Your task to perform on an android device: Go to notification settings Image 0: 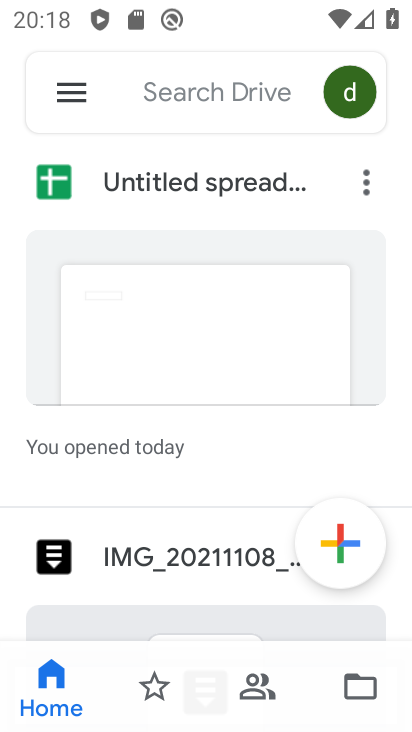
Step 0: press home button
Your task to perform on an android device: Go to notification settings Image 1: 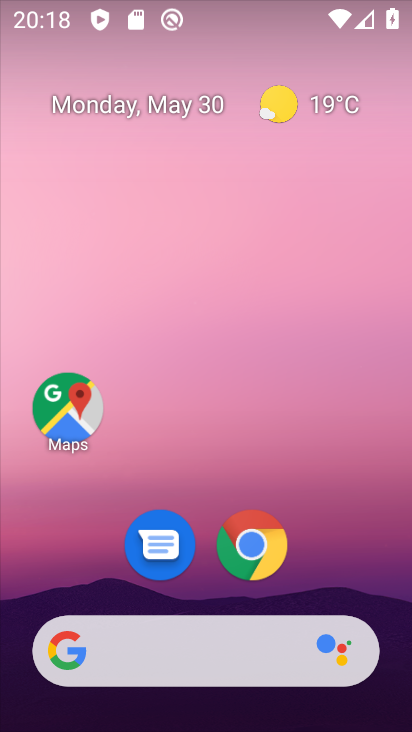
Step 1: drag from (314, 556) to (249, 21)
Your task to perform on an android device: Go to notification settings Image 2: 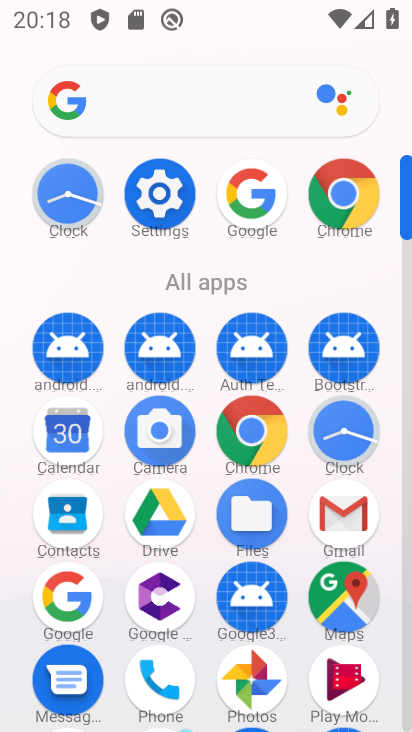
Step 2: click (164, 193)
Your task to perform on an android device: Go to notification settings Image 3: 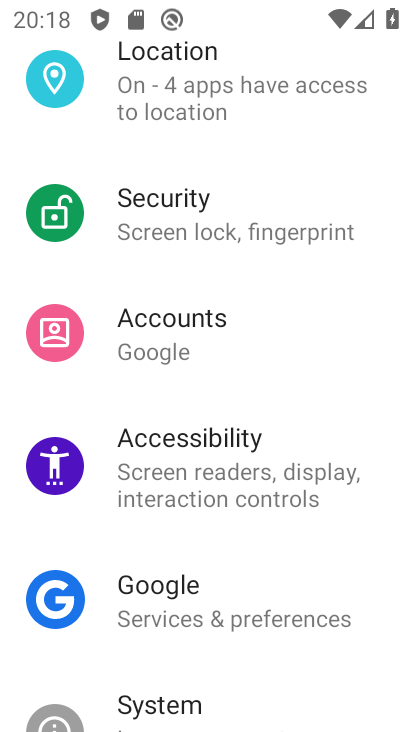
Step 3: drag from (268, 169) to (224, 631)
Your task to perform on an android device: Go to notification settings Image 4: 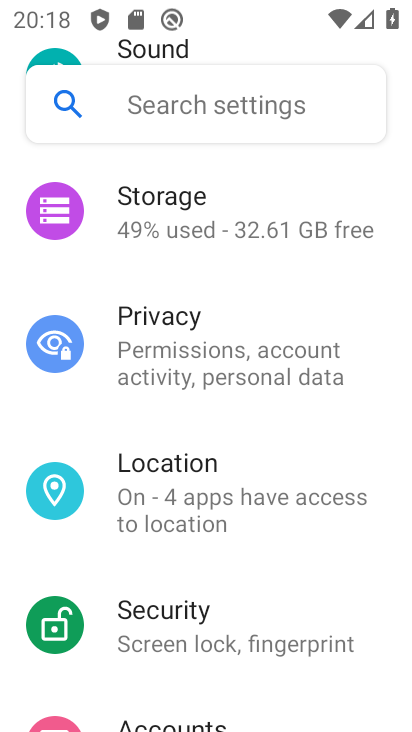
Step 4: drag from (283, 414) to (233, 696)
Your task to perform on an android device: Go to notification settings Image 5: 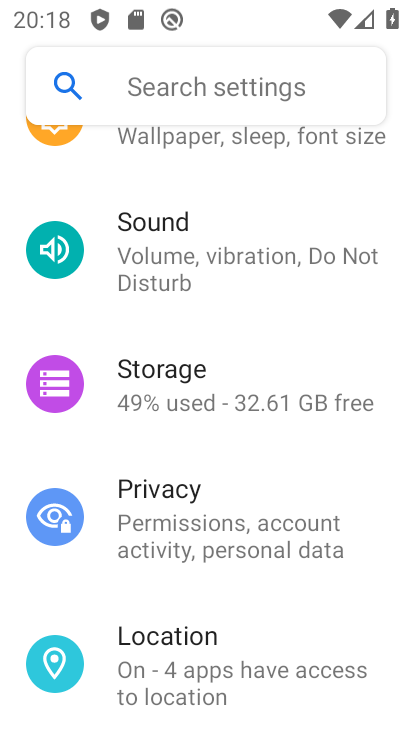
Step 5: drag from (308, 221) to (337, 529)
Your task to perform on an android device: Go to notification settings Image 6: 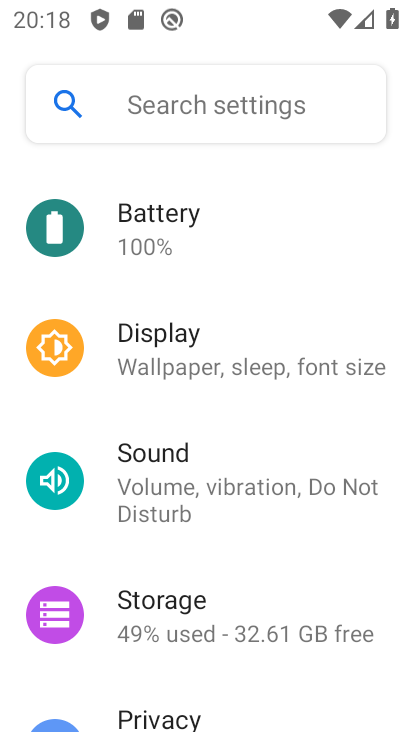
Step 6: drag from (295, 198) to (305, 544)
Your task to perform on an android device: Go to notification settings Image 7: 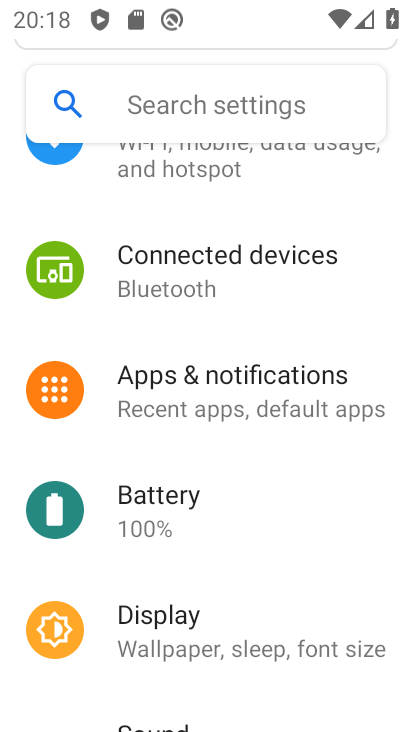
Step 7: click (271, 383)
Your task to perform on an android device: Go to notification settings Image 8: 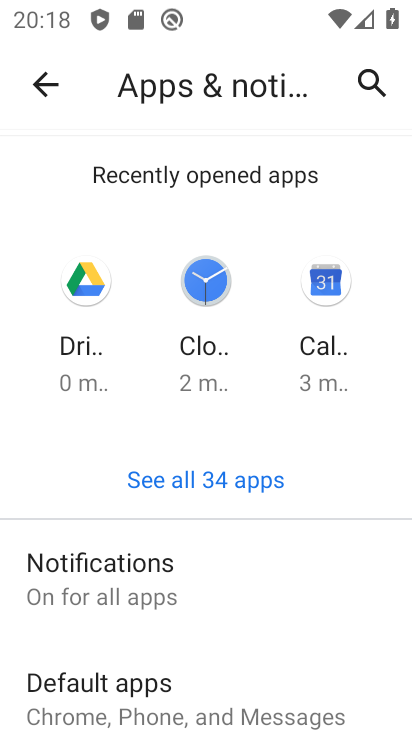
Step 8: task complete